Your task to perform on an android device: change notification settings in the gmail app Image 0: 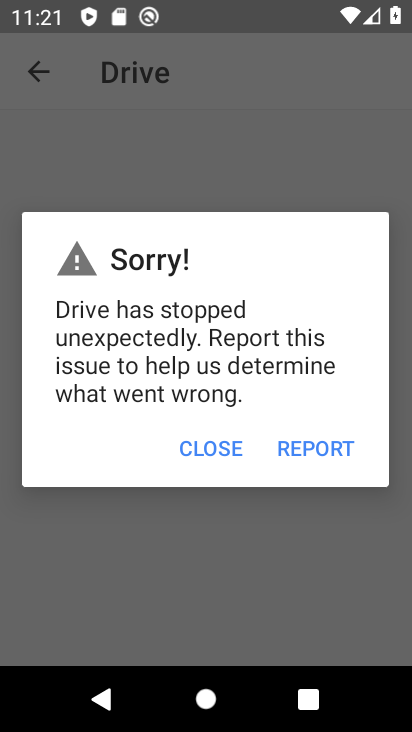
Step 0: press home button
Your task to perform on an android device: change notification settings in the gmail app Image 1: 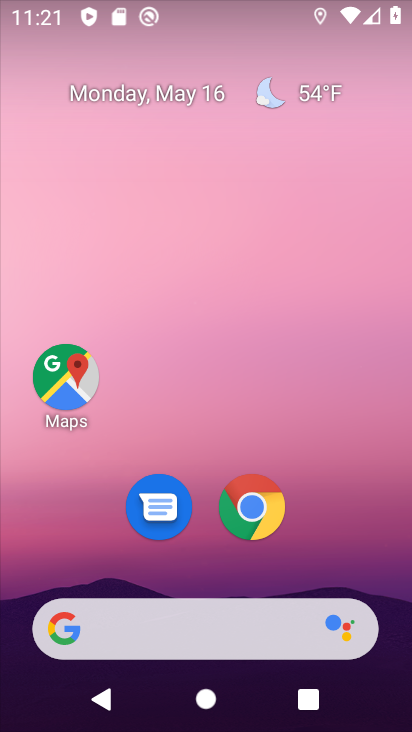
Step 1: drag from (365, 563) to (307, 136)
Your task to perform on an android device: change notification settings in the gmail app Image 2: 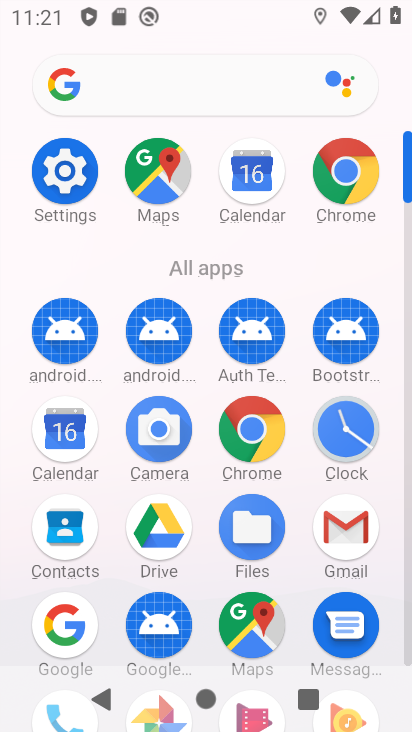
Step 2: click (360, 520)
Your task to perform on an android device: change notification settings in the gmail app Image 3: 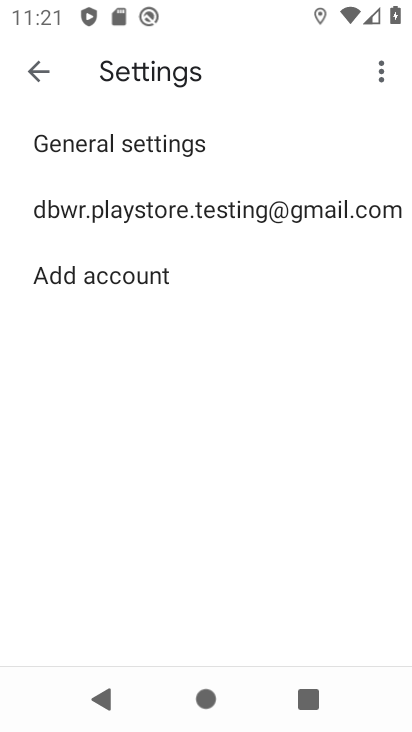
Step 3: click (315, 202)
Your task to perform on an android device: change notification settings in the gmail app Image 4: 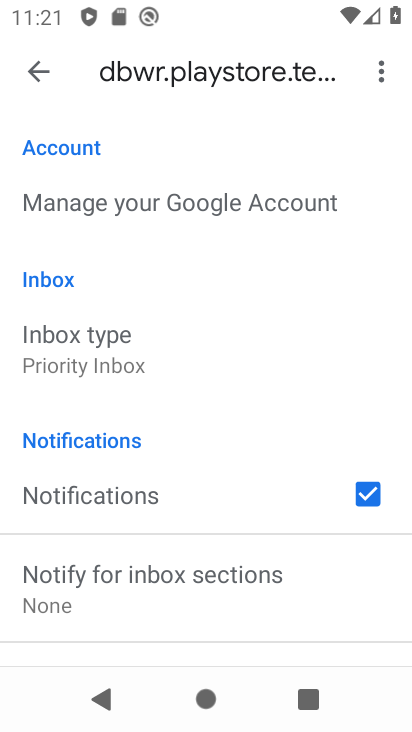
Step 4: drag from (231, 612) to (230, 214)
Your task to perform on an android device: change notification settings in the gmail app Image 5: 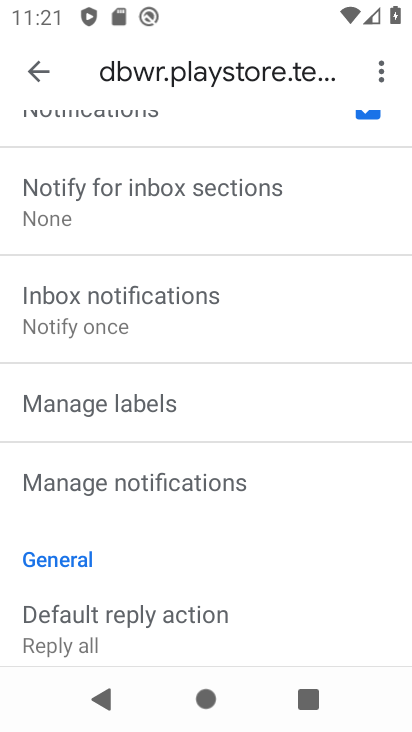
Step 5: drag from (274, 621) to (270, 266)
Your task to perform on an android device: change notification settings in the gmail app Image 6: 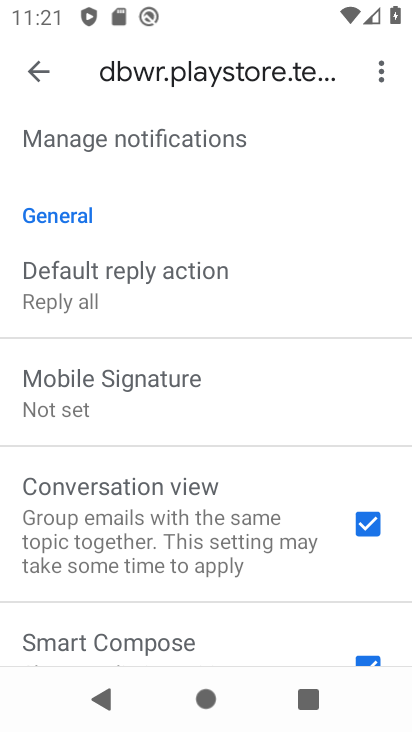
Step 6: click (252, 137)
Your task to perform on an android device: change notification settings in the gmail app Image 7: 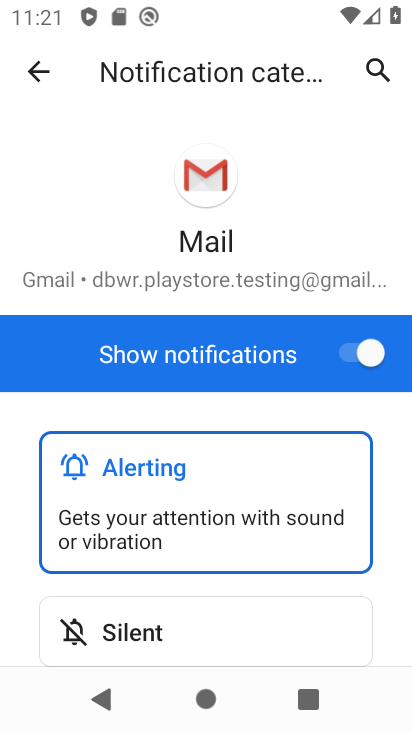
Step 7: drag from (383, 647) to (355, 485)
Your task to perform on an android device: change notification settings in the gmail app Image 8: 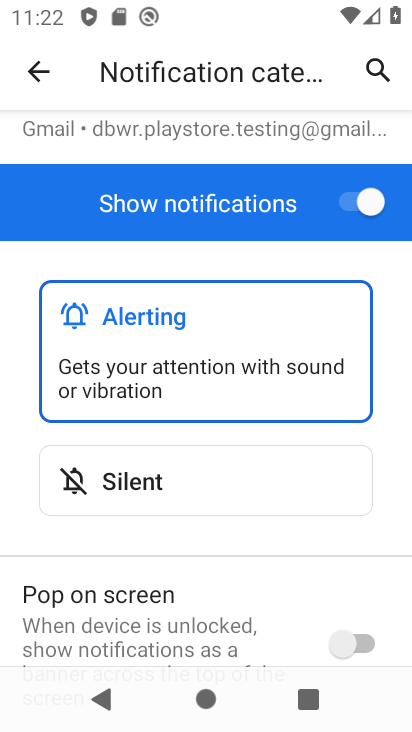
Step 8: drag from (401, 533) to (408, 398)
Your task to perform on an android device: change notification settings in the gmail app Image 9: 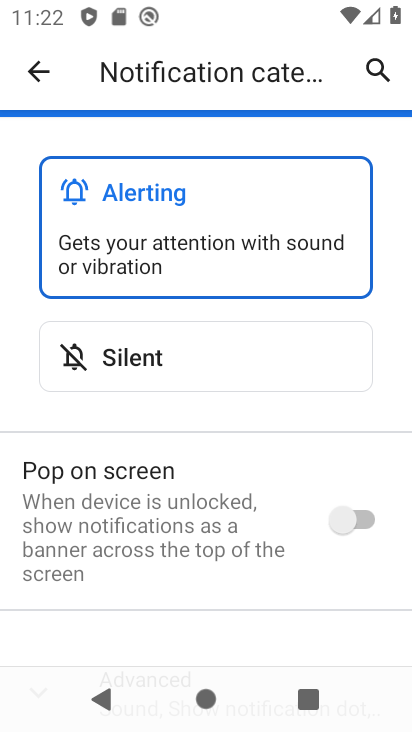
Step 9: click (366, 511)
Your task to perform on an android device: change notification settings in the gmail app Image 10: 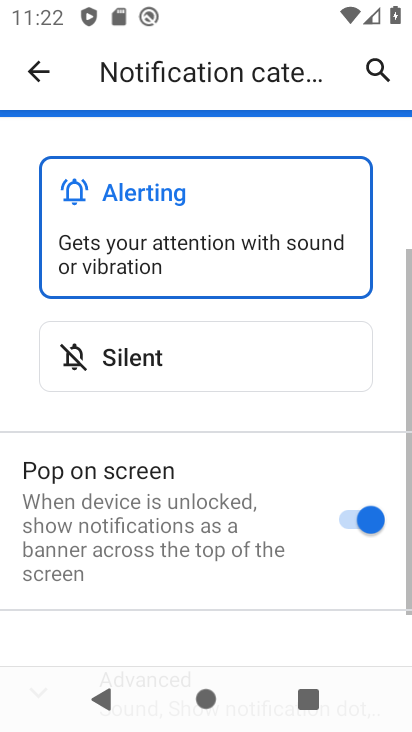
Step 10: click (334, 354)
Your task to perform on an android device: change notification settings in the gmail app Image 11: 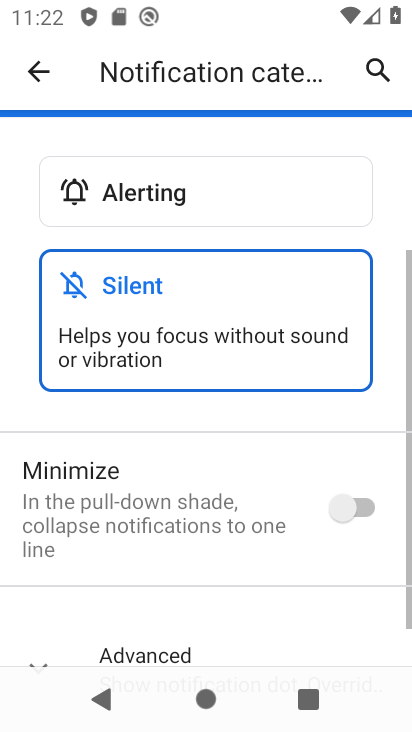
Step 11: click (348, 500)
Your task to perform on an android device: change notification settings in the gmail app Image 12: 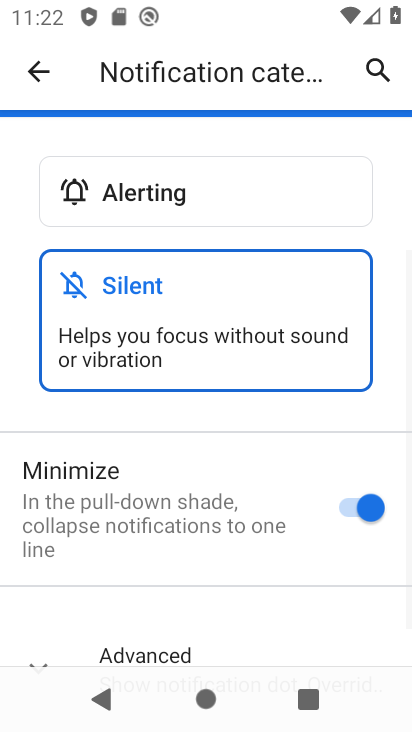
Step 12: task complete